Your task to perform on an android device: Open maps Image 0: 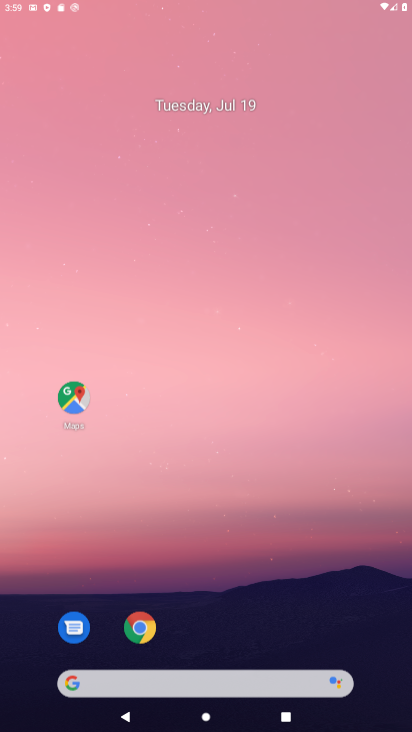
Step 0: drag from (263, 350) to (264, 201)
Your task to perform on an android device: Open maps Image 1: 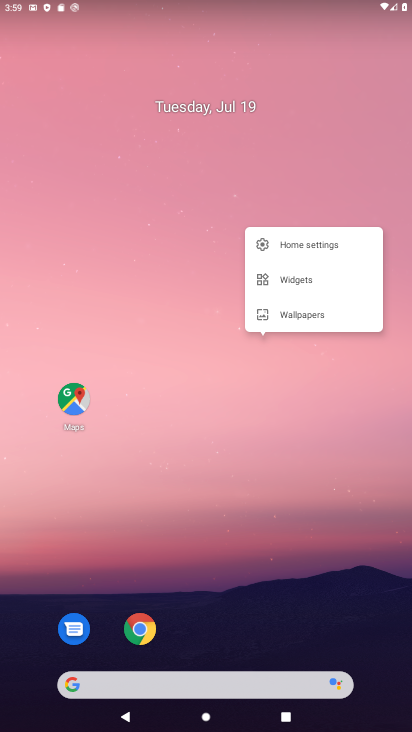
Step 1: click (86, 414)
Your task to perform on an android device: Open maps Image 2: 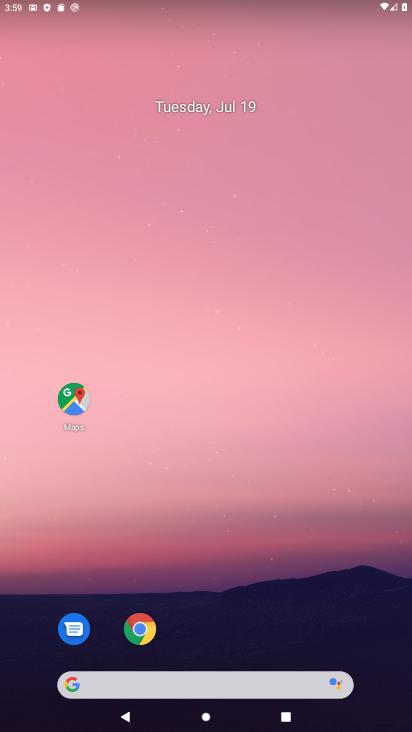
Step 2: click (69, 406)
Your task to perform on an android device: Open maps Image 3: 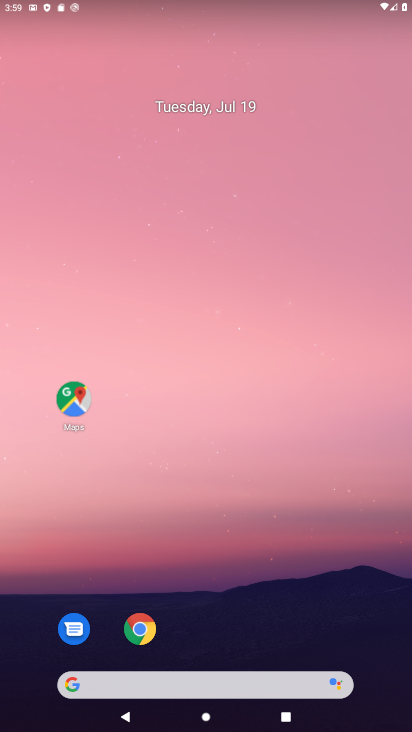
Step 3: click (69, 406)
Your task to perform on an android device: Open maps Image 4: 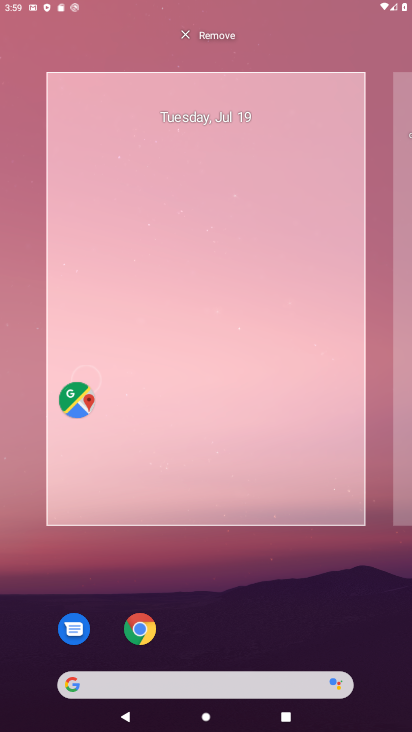
Step 4: click (80, 410)
Your task to perform on an android device: Open maps Image 5: 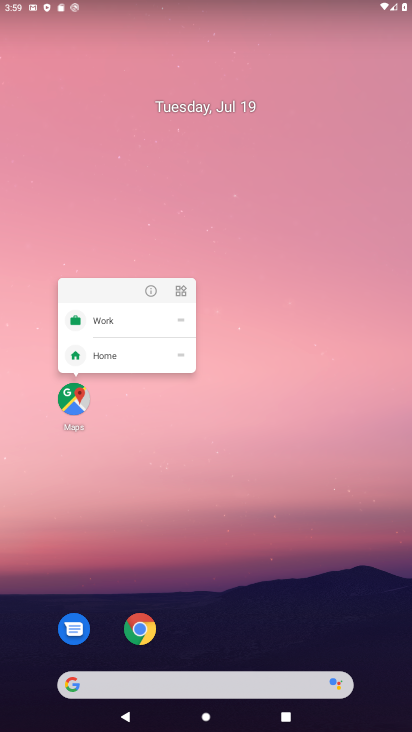
Step 5: click (87, 381)
Your task to perform on an android device: Open maps Image 6: 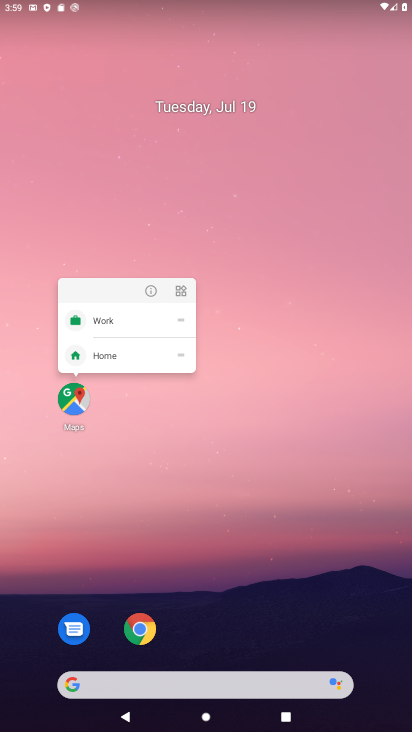
Step 6: click (78, 397)
Your task to perform on an android device: Open maps Image 7: 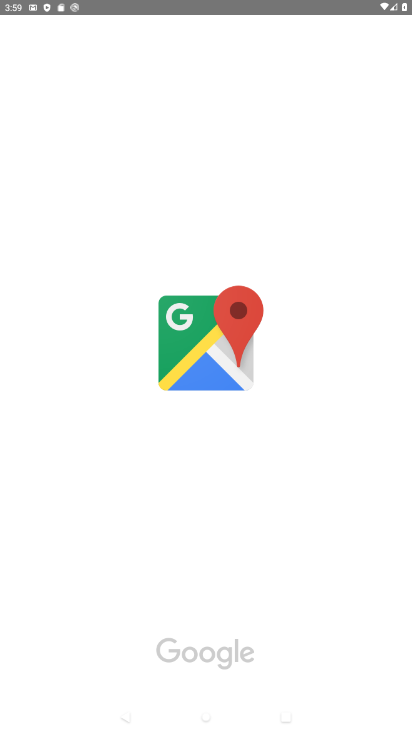
Step 7: click (82, 398)
Your task to perform on an android device: Open maps Image 8: 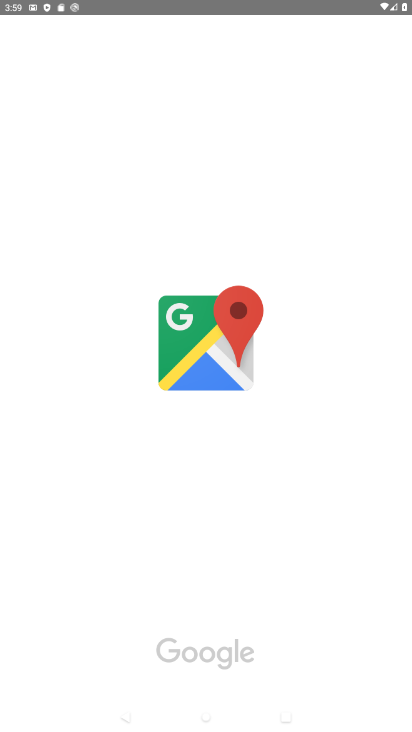
Step 8: click (104, 385)
Your task to perform on an android device: Open maps Image 9: 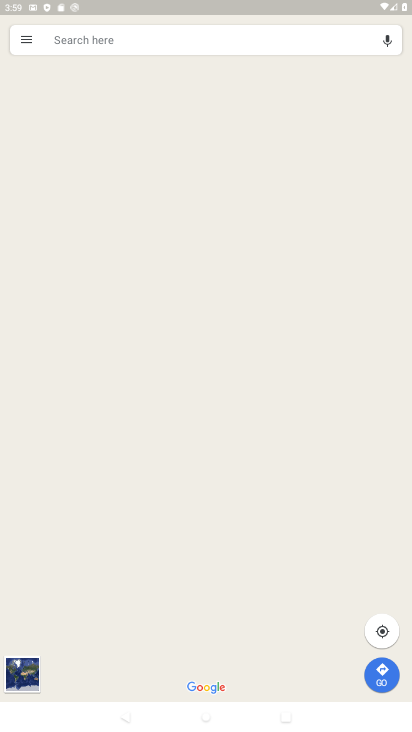
Step 9: click (198, 337)
Your task to perform on an android device: Open maps Image 10: 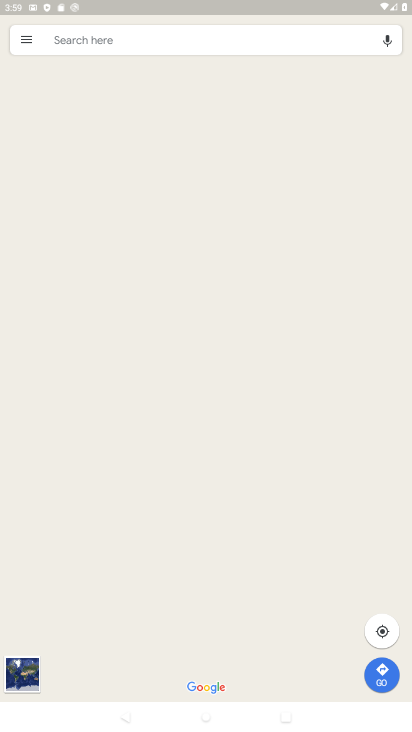
Step 10: click (198, 337)
Your task to perform on an android device: Open maps Image 11: 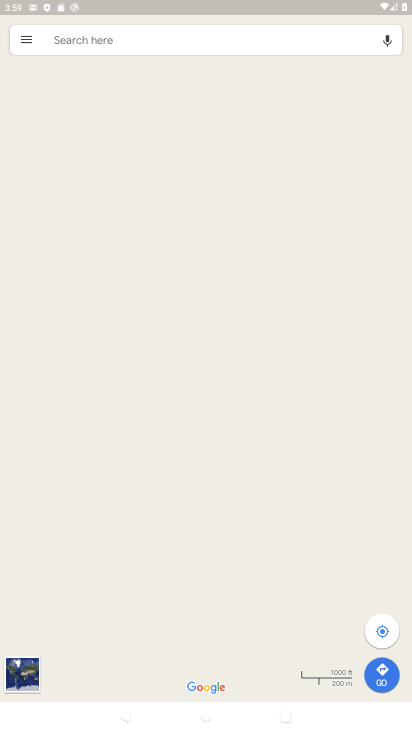
Step 11: click (198, 337)
Your task to perform on an android device: Open maps Image 12: 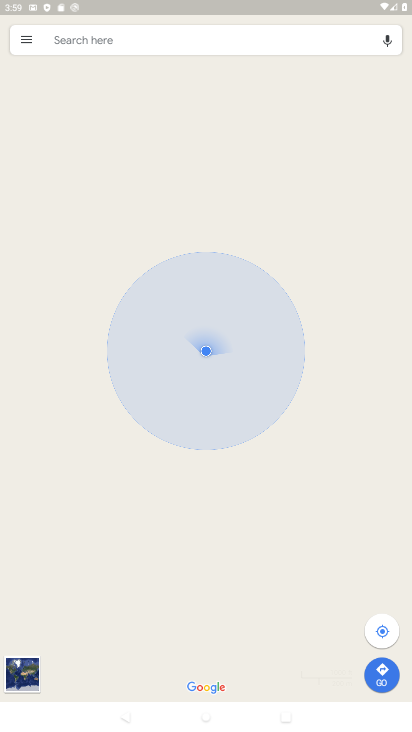
Step 12: task complete